Your task to perform on an android device: Search for the best rated TV on Target Image 0: 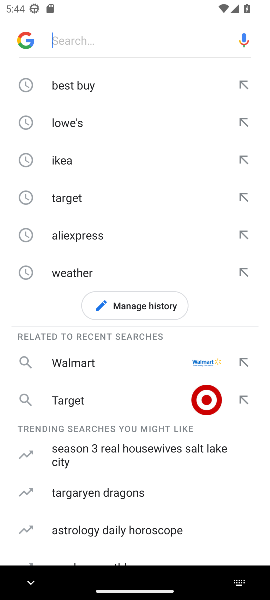
Step 0: press home button
Your task to perform on an android device: Search for the best rated TV on Target Image 1: 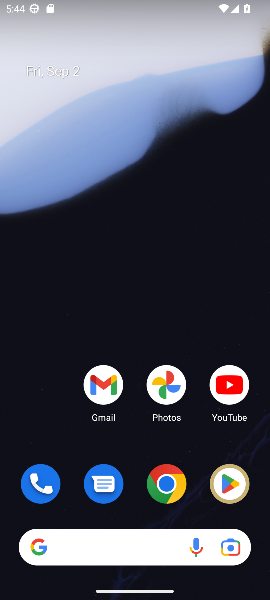
Step 1: click (168, 479)
Your task to perform on an android device: Search for the best rated TV on Target Image 2: 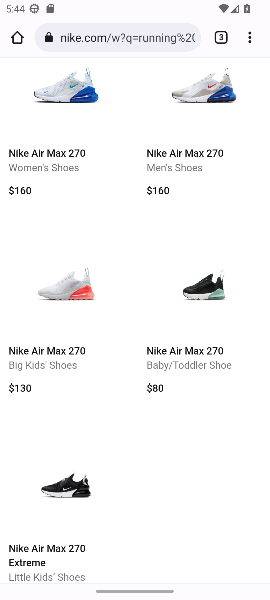
Step 2: click (142, 35)
Your task to perform on an android device: Search for the best rated TV on Target Image 3: 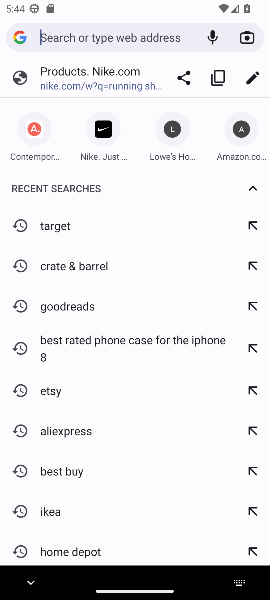
Step 3: type "Target"
Your task to perform on an android device: Search for the best rated TV on Target Image 4: 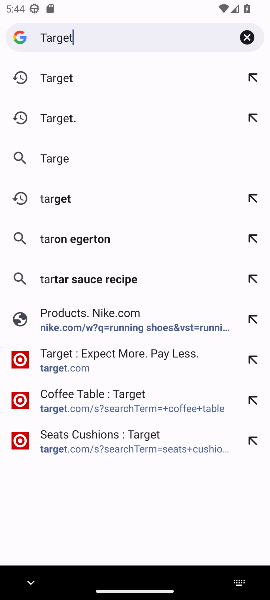
Step 4: press enter
Your task to perform on an android device: Search for the best rated TV on Target Image 5: 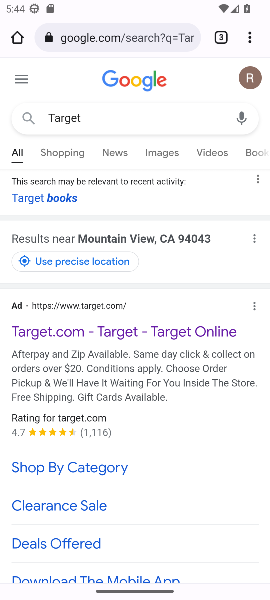
Step 5: click (123, 333)
Your task to perform on an android device: Search for the best rated TV on Target Image 6: 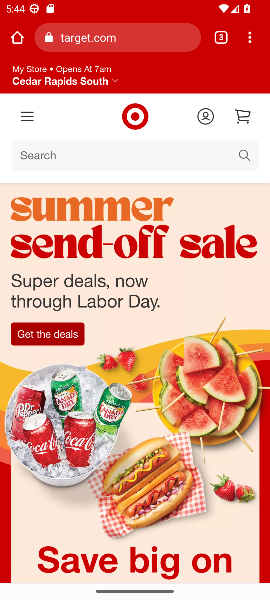
Step 6: click (243, 154)
Your task to perform on an android device: Search for the best rated TV on Target Image 7: 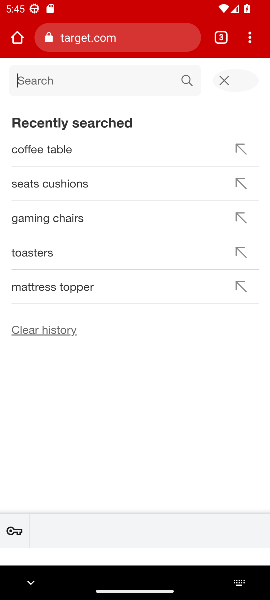
Step 7: type "best rated TV"
Your task to perform on an android device: Search for the best rated TV on Target Image 8: 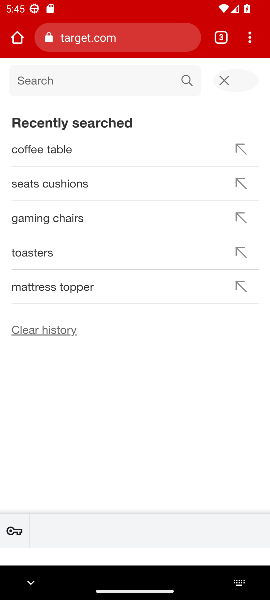
Step 8: press enter
Your task to perform on an android device: Search for the best rated TV on Target Image 9: 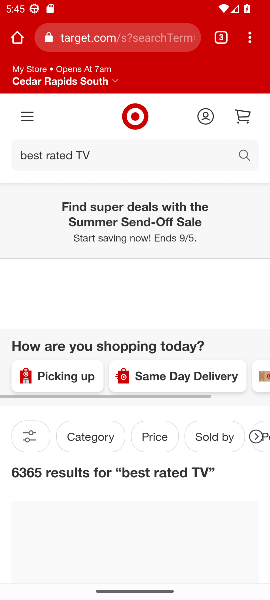
Step 9: task complete